Your task to perform on an android device: Go to network settings Image 0: 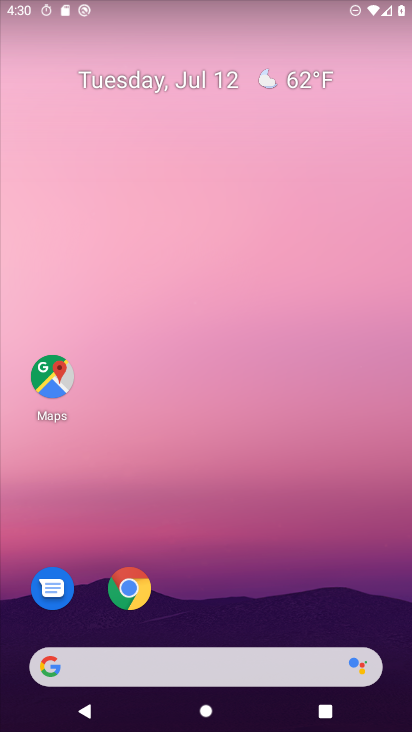
Step 0: click (305, 76)
Your task to perform on an android device: Go to network settings Image 1: 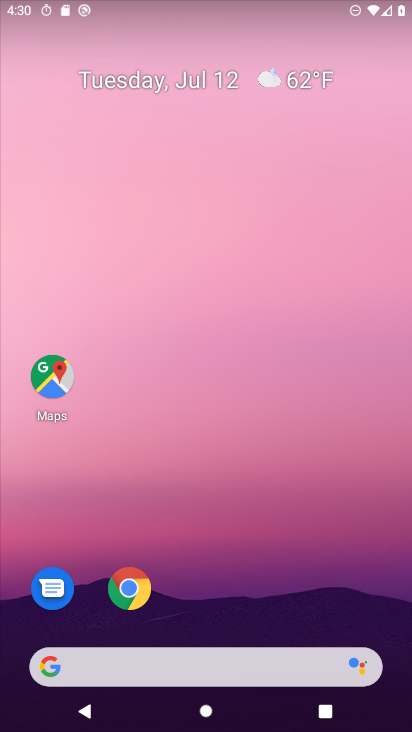
Step 1: drag from (209, 618) to (345, 3)
Your task to perform on an android device: Go to network settings Image 2: 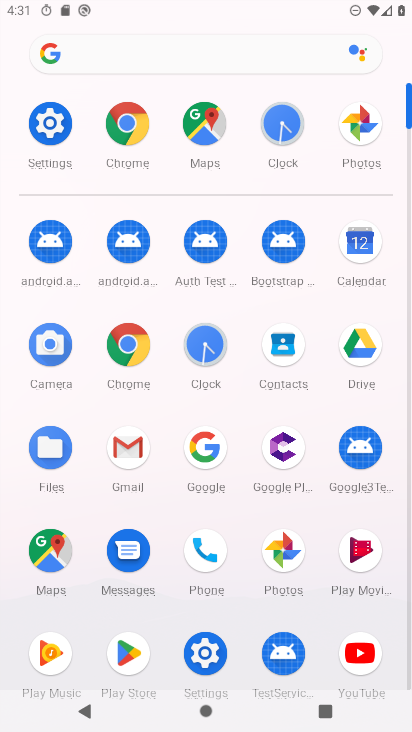
Step 2: click (203, 652)
Your task to perform on an android device: Go to network settings Image 3: 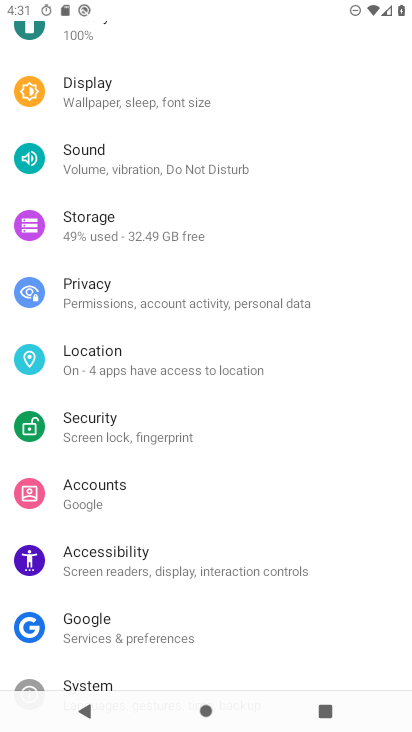
Step 3: drag from (214, 263) to (239, 434)
Your task to perform on an android device: Go to network settings Image 4: 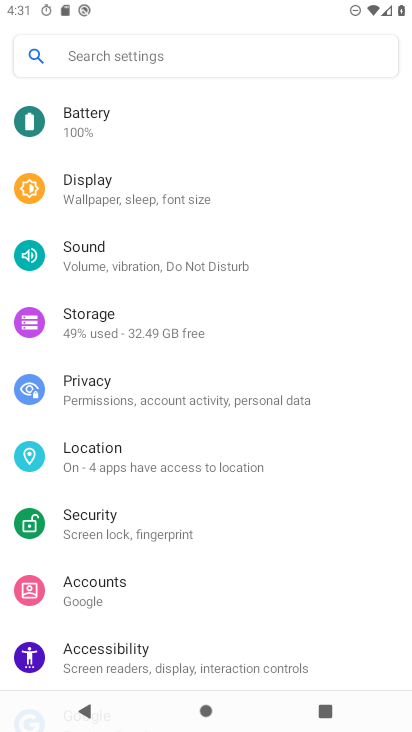
Step 4: drag from (155, 118) to (169, 614)
Your task to perform on an android device: Go to network settings Image 5: 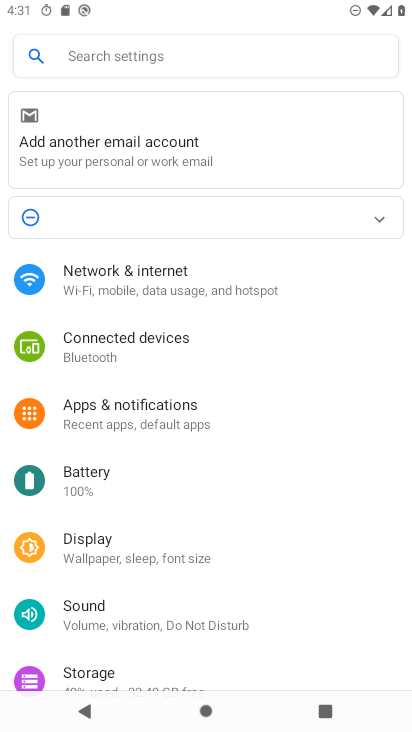
Step 5: click (161, 278)
Your task to perform on an android device: Go to network settings Image 6: 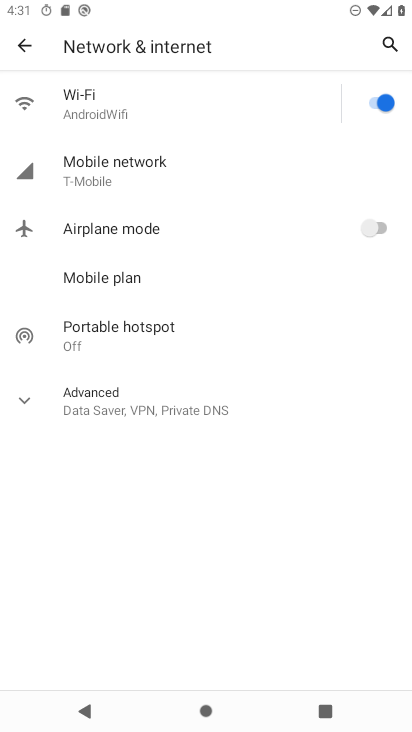
Step 6: task complete